Your task to perform on an android device: Open location settings Image 0: 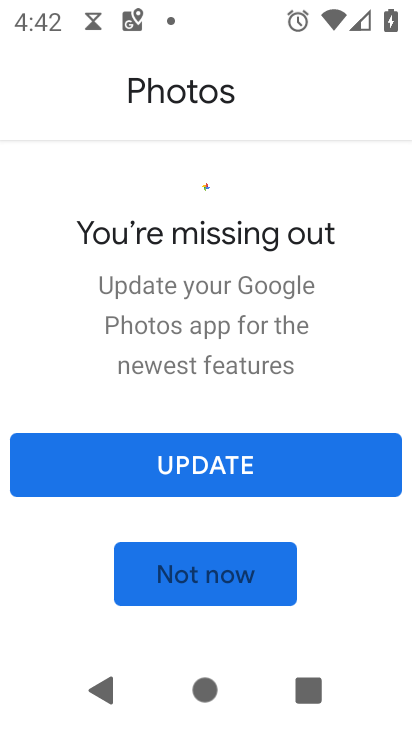
Step 0: press home button
Your task to perform on an android device: Open location settings Image 1: 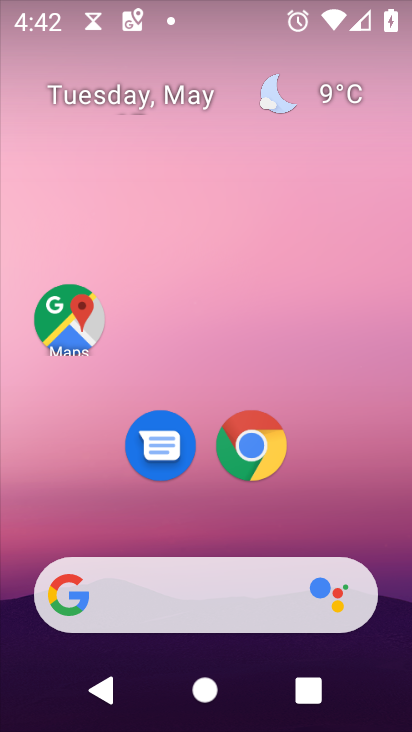
Step 1: drag from (175, 576) to (313, 4)
Your task to perform on an android device: Open location settings Image 2: 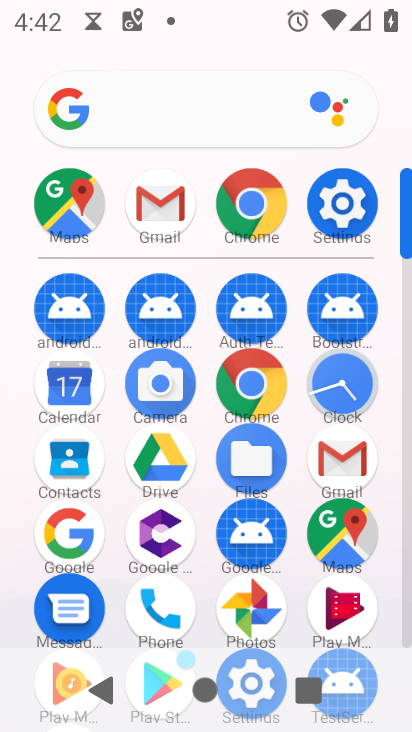
Step 2: click (343, 202)
Your task to perform on an android device: Open location settings Image 3: 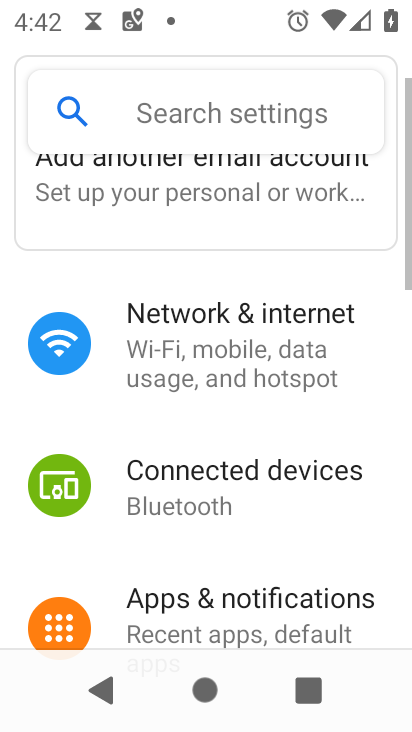
Step 3: drag from (253, 491) to (266, 50)
Your task to perform on an android device: Open location settings Image 4: 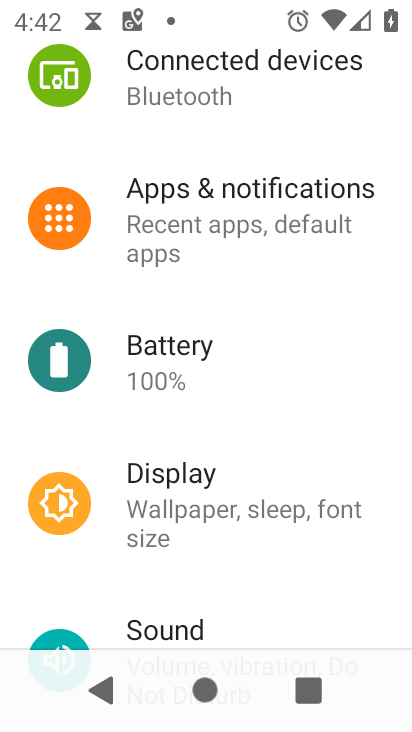
Step 4: drag from (251, 504) to (282, 45)
Your task to perform on an android device: Open location settings Image 5: 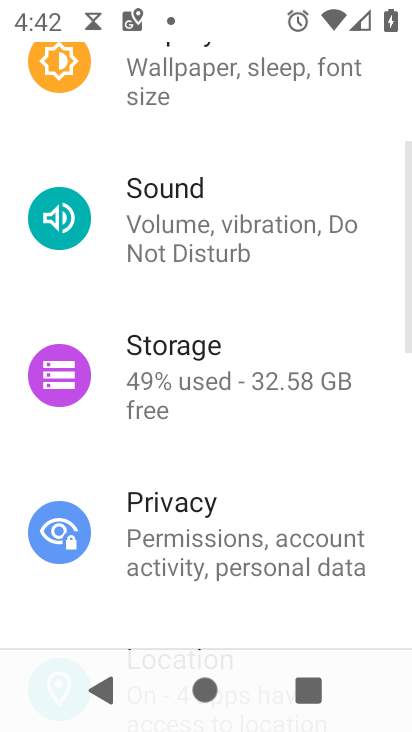
Step 5: drag from (299, 479) to (295, 180)
Your task to perform on an android device: Open location settings Image 6: 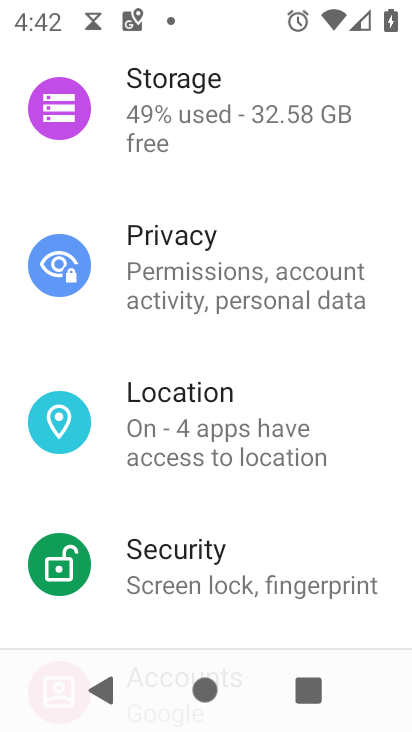
Step 6: click (277, 401)
Your task to perform on an android device: Open location settings Image 7: 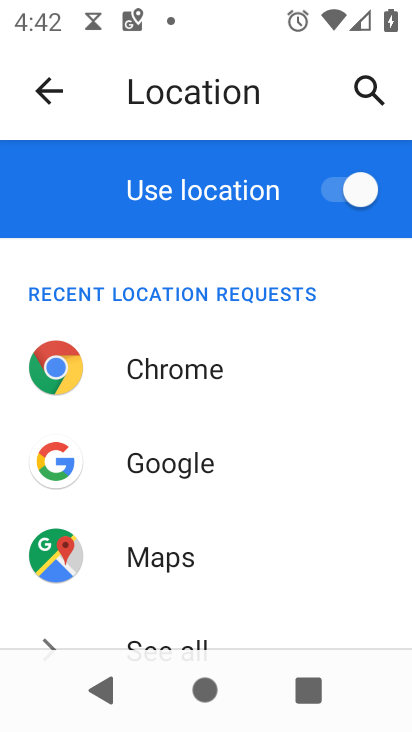
Step 7: task complete